Your task to perform on an android device: choose inbox layout in the gmail app Image 0: 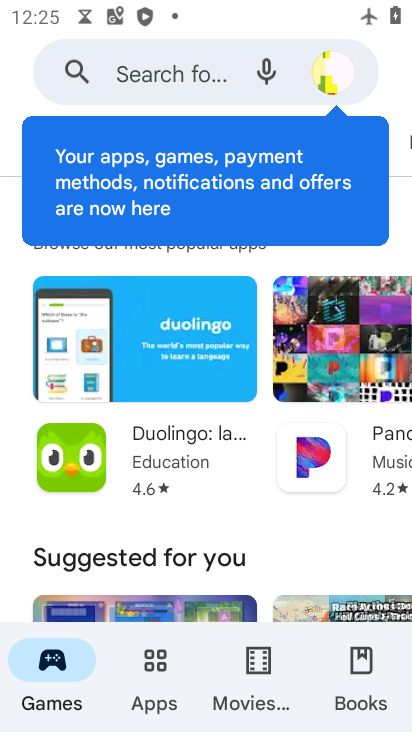
Step 0: press home button
Your task to perform on an android device: choose inbox layout in the gmail app Image 1: 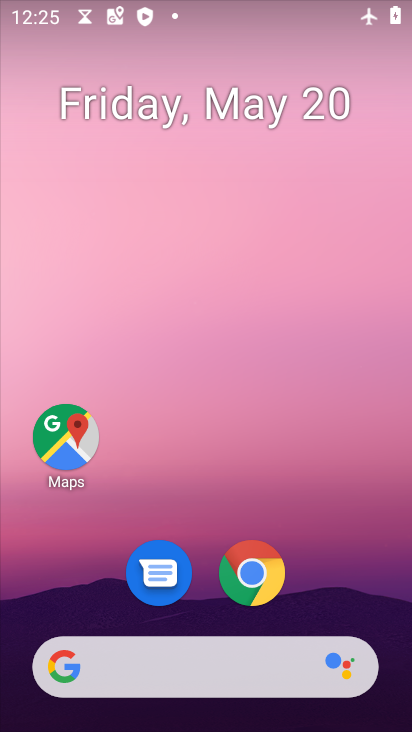
Step 1: drag from (327, 610) to (317, 36)
Your task to perform on an android device: choose inbox layout in the gmail app Image 2: 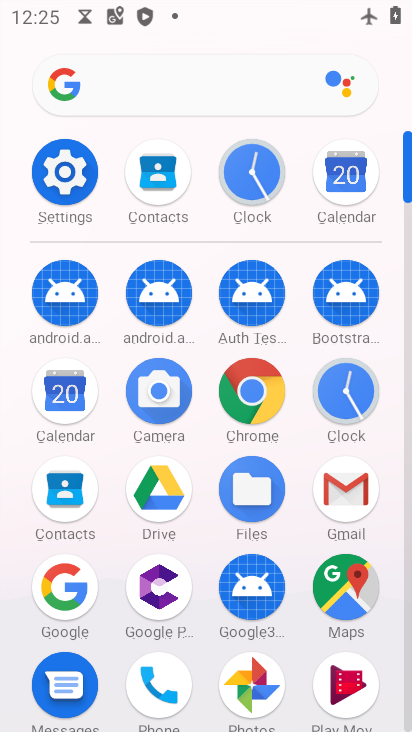
Step 2: click (348, 494)
Your task to perform on an android device: choose inbox layout in the gmail app Image 3: 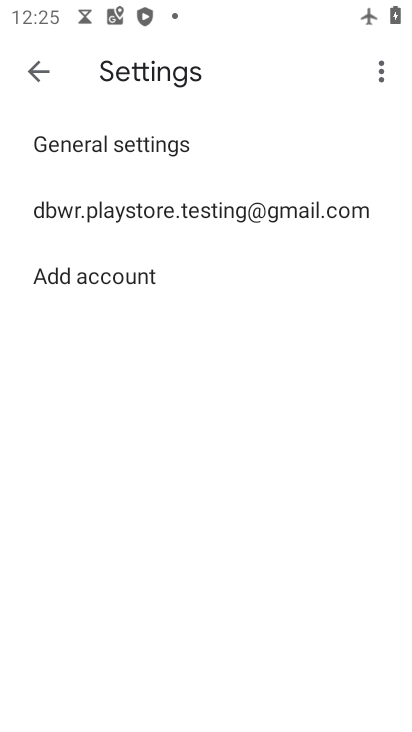
Step 3: click (104, 203)
Your task to perform on an android device: choose inbox layout in the gmail app Image 4: 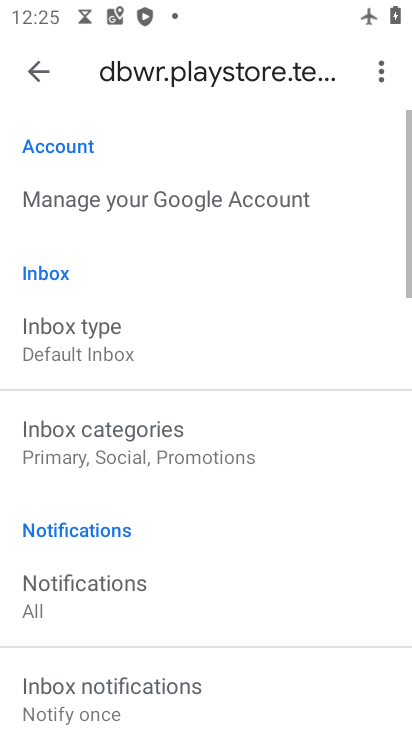
Step 4: click (13, 362)
Your task to perform on an android device: choose inbox layout in the gmail app Image 5: 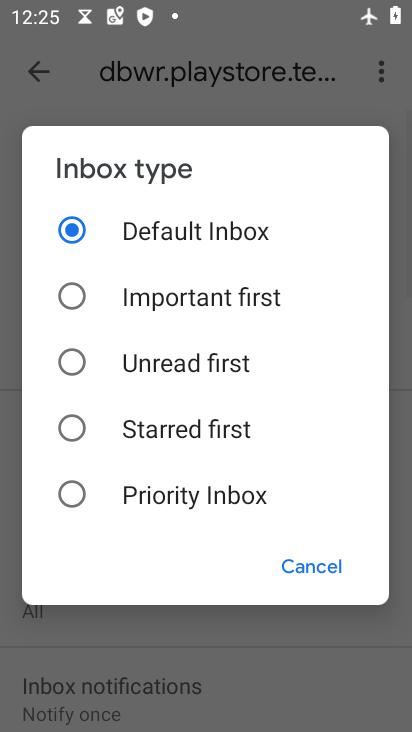
Step 5: click (197, 518)
Your task to perform on an android device: choose inbox layout in the gmail app Image 6: 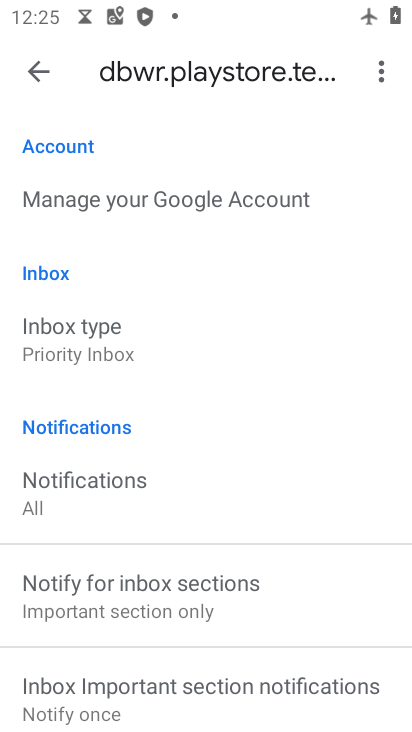
Step 6: task complete